Your task to perform on an android device: visit the assistant section in the google photos Image 0: 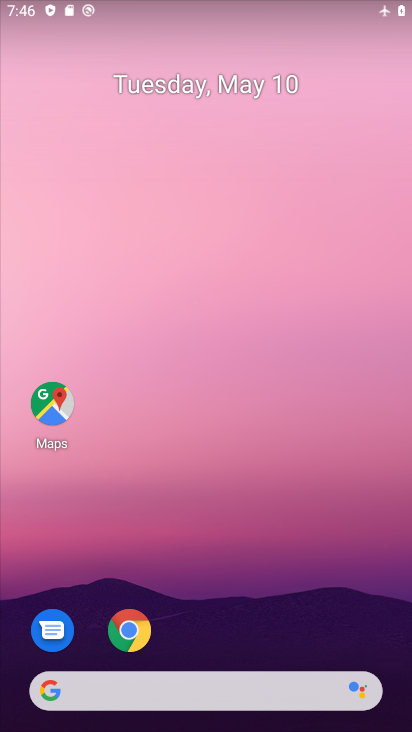
Step 0: drag from (184, 574) to (134, 10)
Your task to perform on an android device: visit the assistant section in the google photos Image 1: 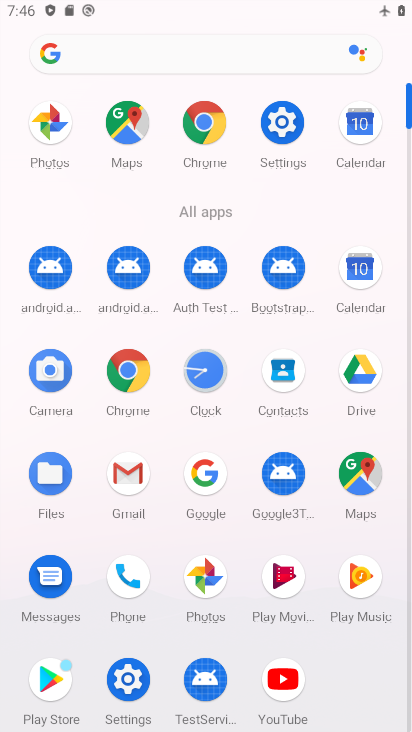
Step 1: click (196, 584)
Your task to perform on an android device: visit the assistant section in the google photos Image 2: 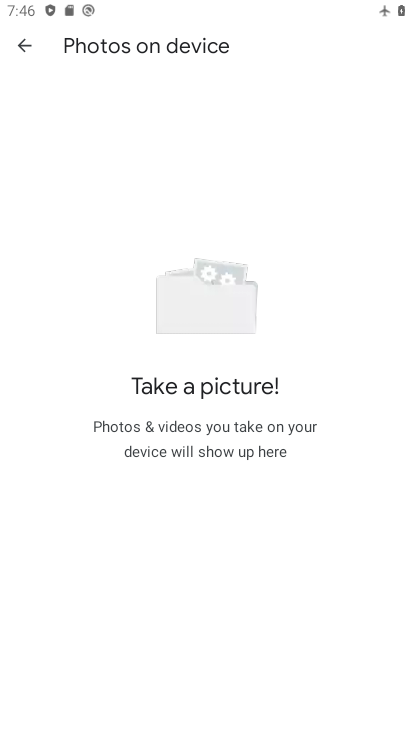
Step 2: click (34, 30)
Your task to perform on an android device: visit the assistant section in the google photos Image 3: 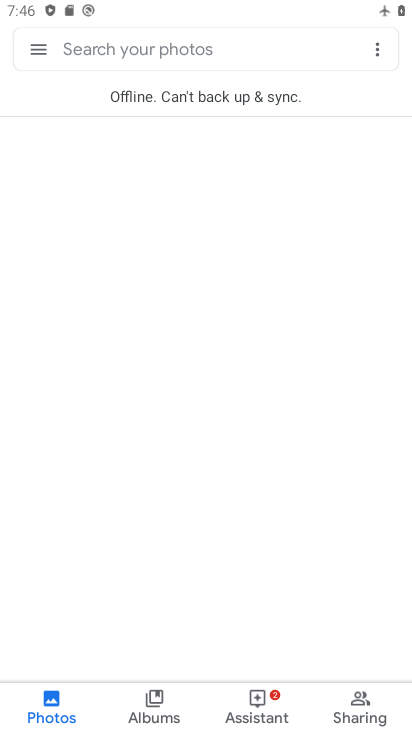
Step 3: click (273, 706)
Your task to perform on an android device: visit the assistant section in the google photos Image 4: 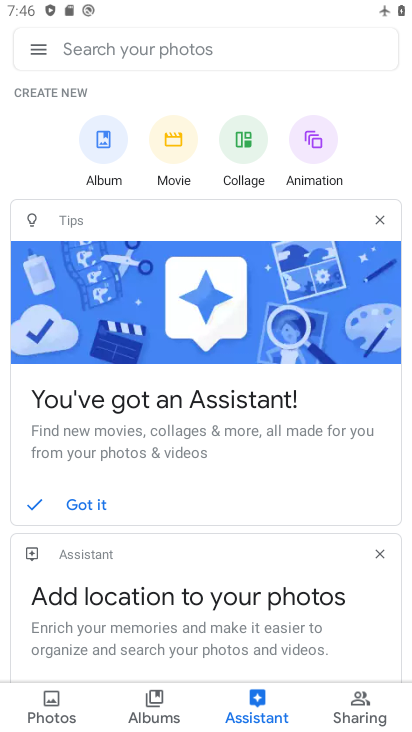
Step 4: task complete